Your task to perform on an android device: When is my next meeting? Image 0: 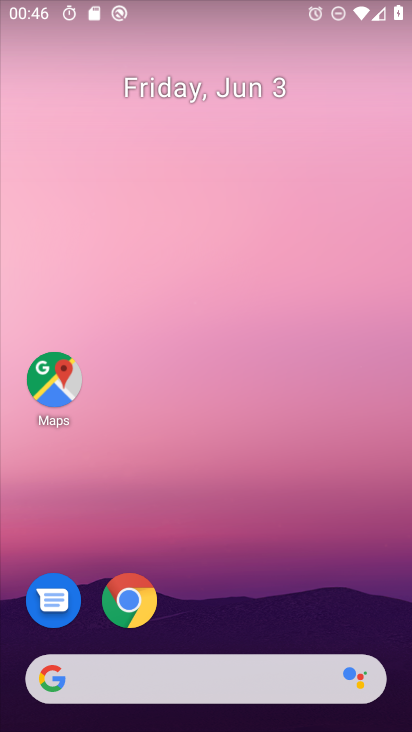
Step 0: drag from (204, 622) to (233, 90)
Your task to perform on an android device: When is my next meeting? Image 1: 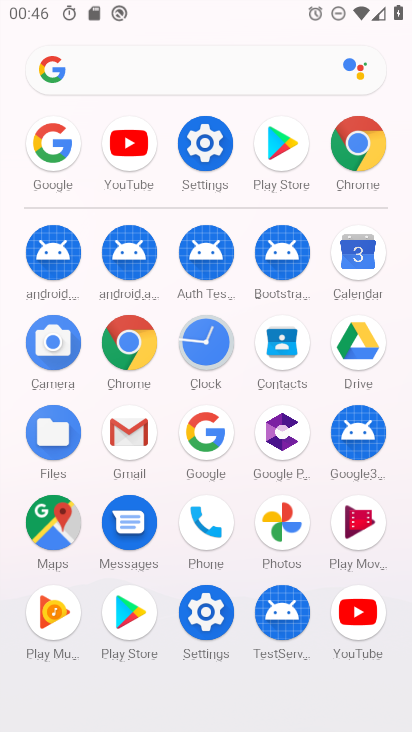
Step 1: click (354, 259)
Your task to perform on an android device: When is my next meeting? Image 2: 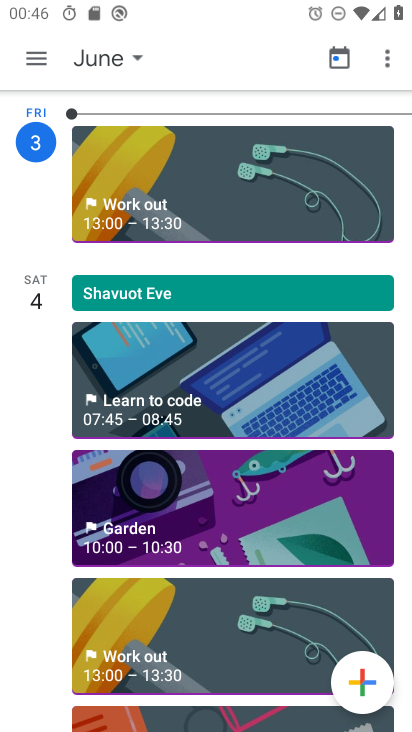
Step 2: click (121, 55)
Your task to perform on an android device: When is my next meeting? Image 3: 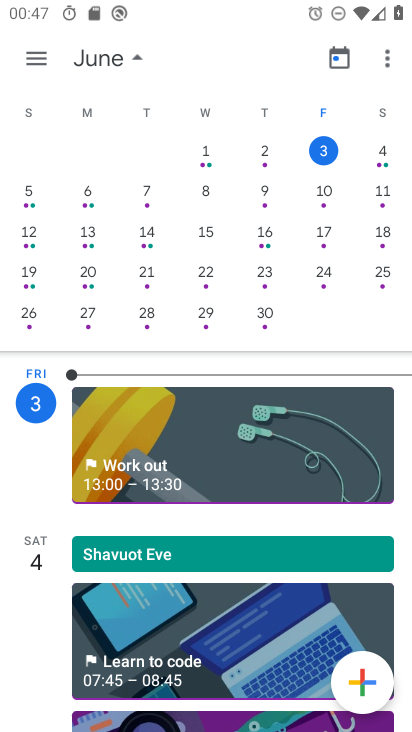
Step 3: click (258, 191)
Your task to perform on an android device: When is my next meeting? Image 4: 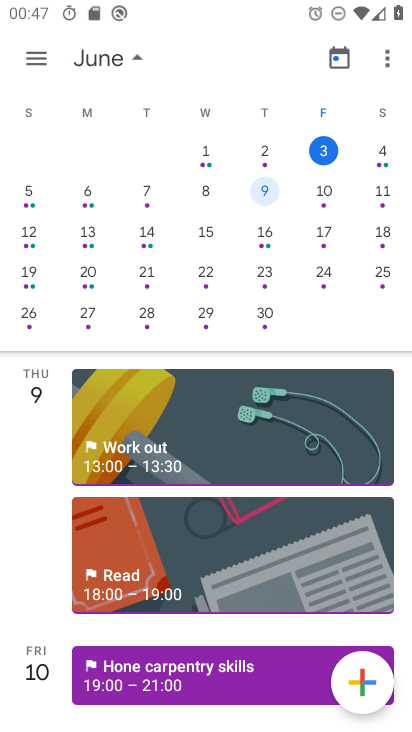
Step 4: task complete